Your task to perform on an android device: open the mobile data screen to see how much data has been used Image 0: 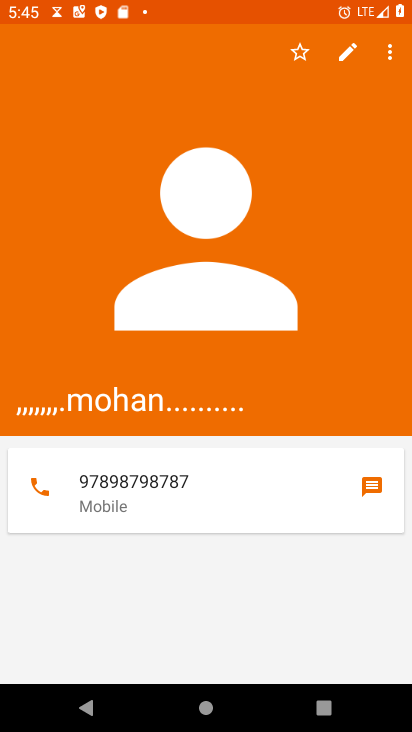
Step 0: press home button
Your task to perform on an android device: open the mobile data screen to see how much data has been used Image 1: 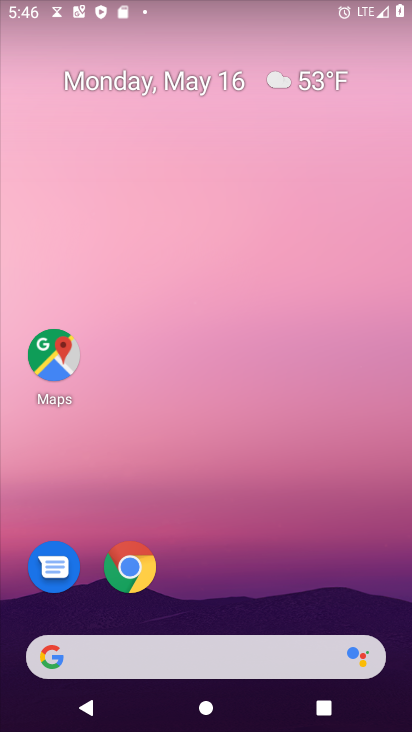
Step 1: drag from (182, 696) to (113, 7)
Your task to perform on an android device: open the mobile data screen to see how much data has been used Image 2: 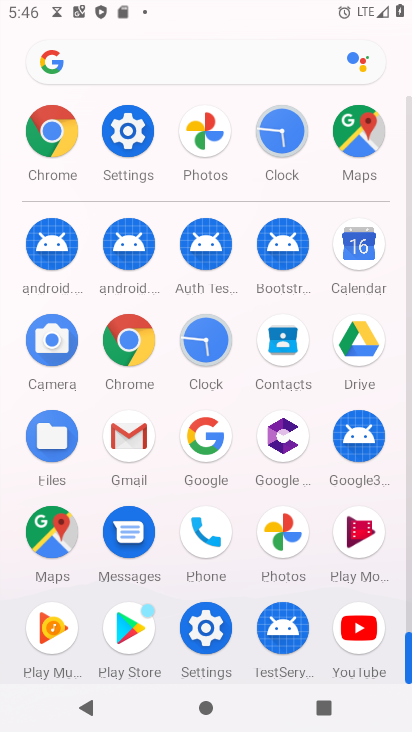
Step 2: click (104, 127)
Your task to perform on an android device: open the mobile data screen to see how much data has been used Image 3: 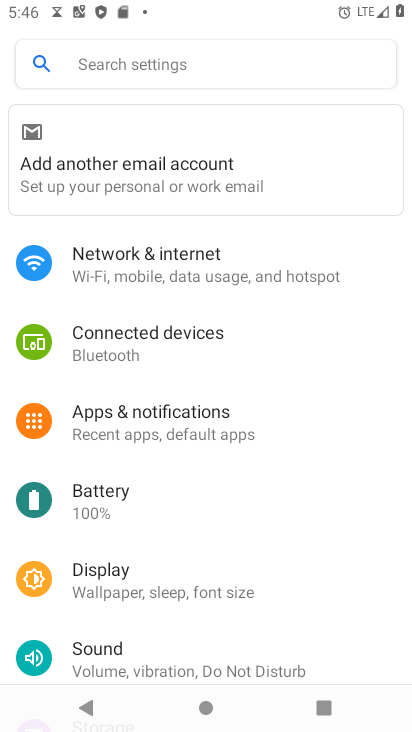
Step 3: click (216, 283)
Your task to perform on an android device: open the mobile data screen to see how much data has been used Image 4: 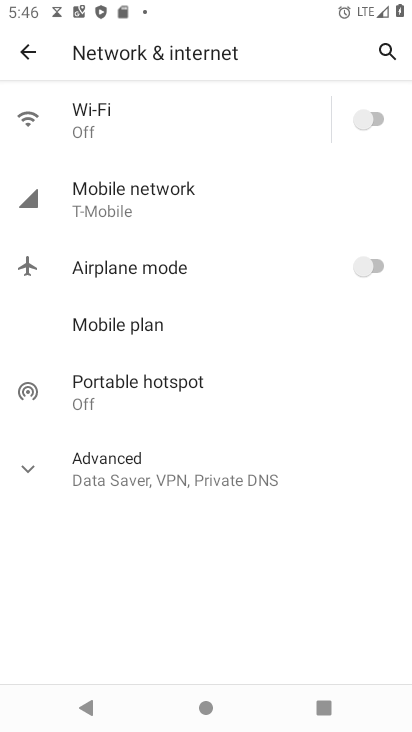
Step 4: task complete